Your task to perform on an android device: open chrome privacy settings Image 0: 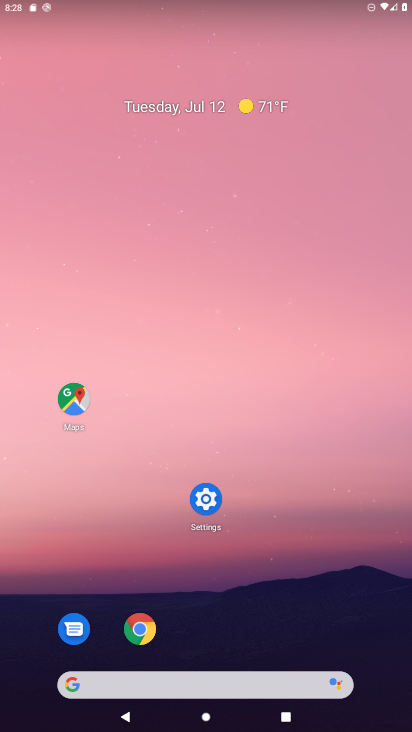
Step 0: click (210, 497)
Your task to perform on an android device: open chrome privacy settings Image 1: 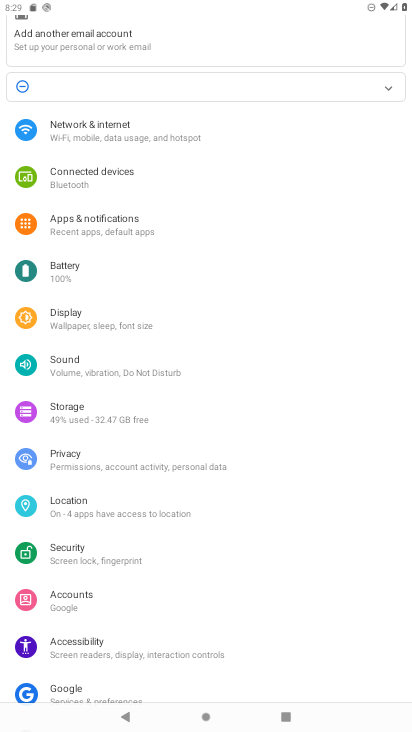
Step 1: click (77, 457)
Your task to perform on an android device: open chrome privacy settings Image 2: 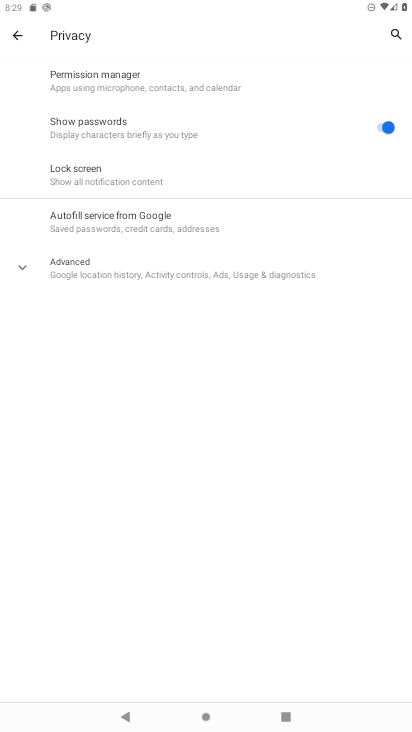
Step 2: click (16, 263)
Your task to perform on an android device: open chrome privacy settings Image 3: 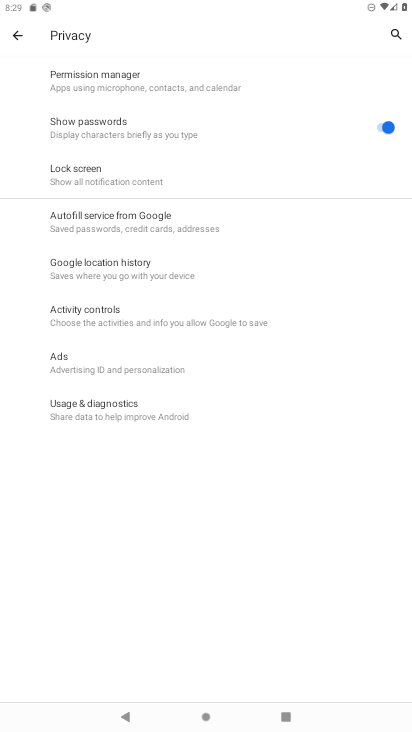
Step 3: task complete